Your task to perform on an android device: When is my next meeting? Image 0: 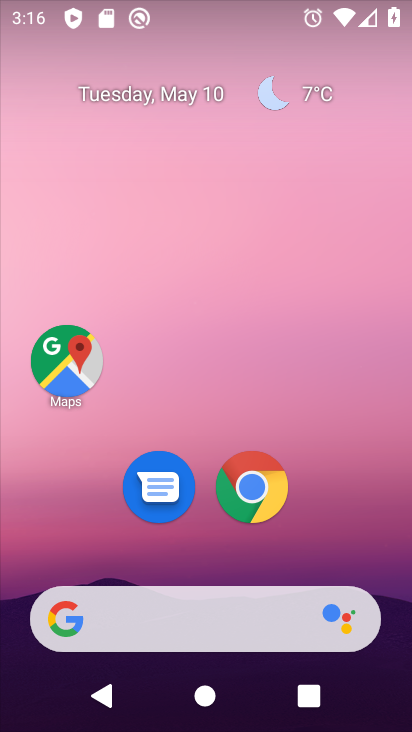
Step 0: drag from (332, 518) to (320, 91)
Your task to perform on an android device: When is my next meeting? Image 1: 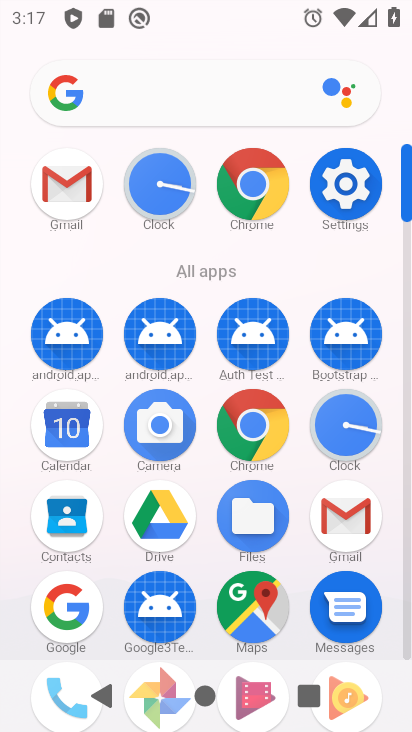
Step 1: click (53, 434)
Your task to perform on an android device: When is my next meeting? Image 2: 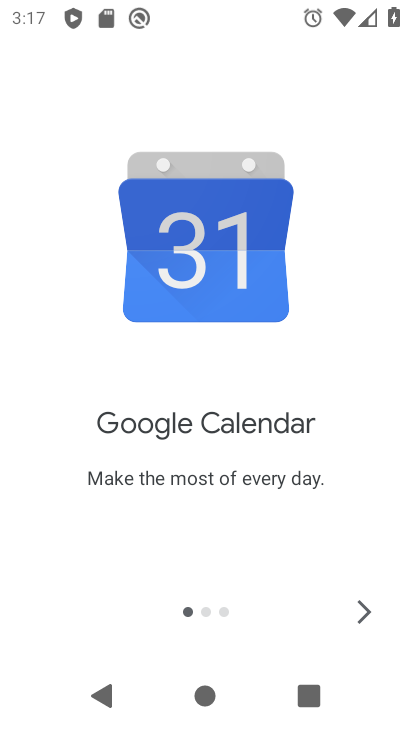
Step 2: click (367, 605)
Your task to perform on an android device: When is my next meeting? Image 3: 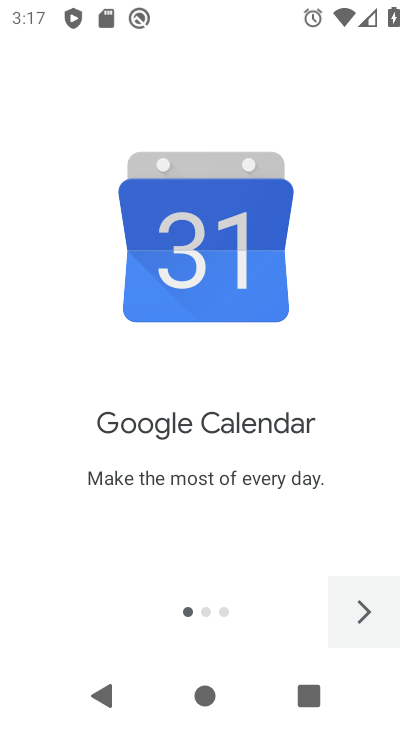
Step 3: click (366, 605)
Your task to perform on an android device: When is my next meeting? Image 4: 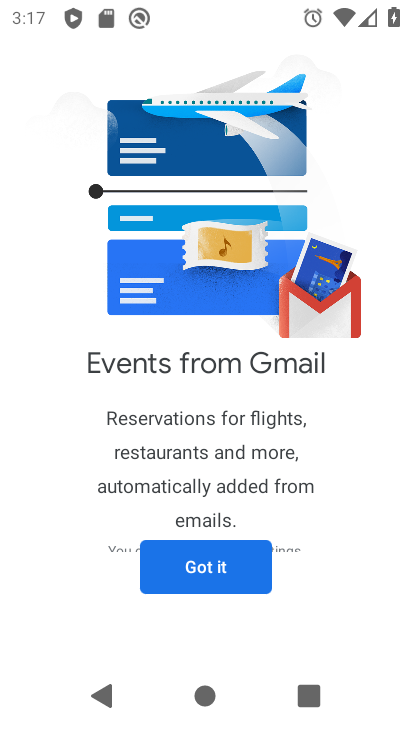
Step 4: click (366, 605)
Your task to perform on an android device: When is my next meeting? Image 5: 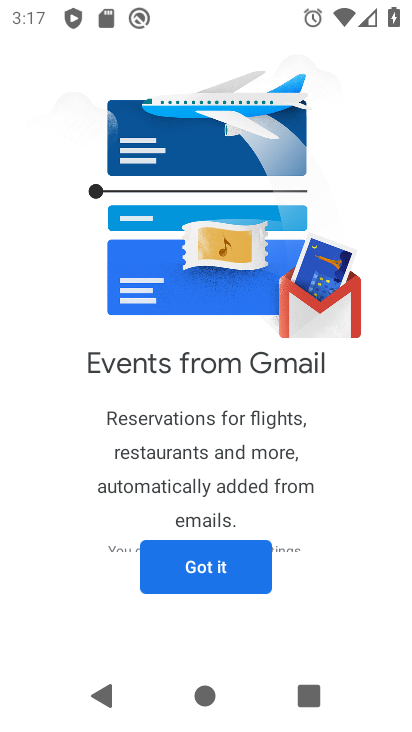
Step 5: click (206, 554)
Your task to perform on an android device: When is my next meeting? Image 6: 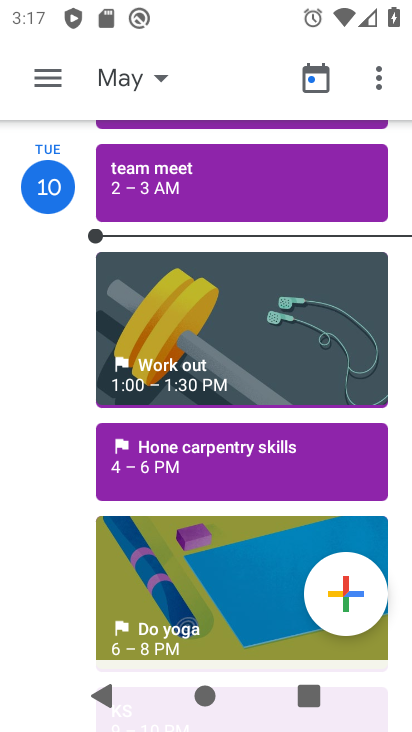
Step 6: click (113, 84)
Your task to perform on an android device: When is my next meeting? Image 7: 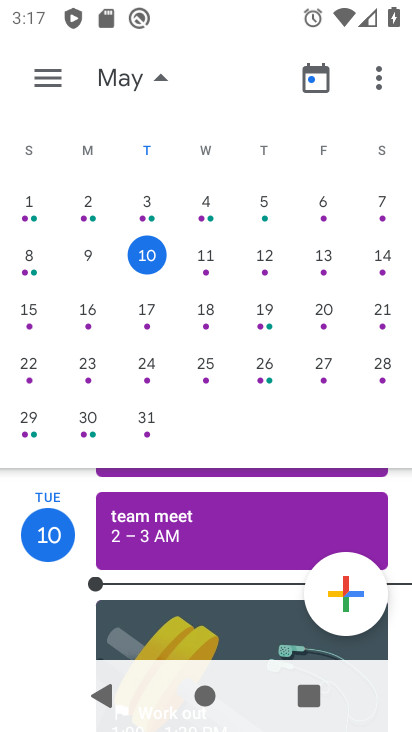
Step 7: click (113, 84)
Your task to perform on an android device: When is my next meeting? Image 8: 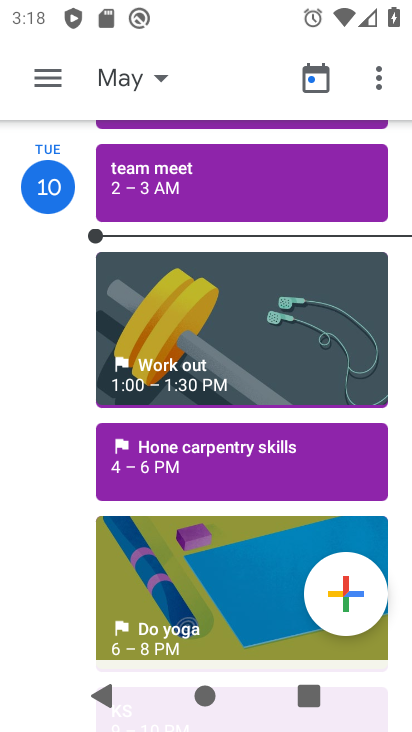
Step 8: task complete